Your task to perform on an android device: change your default location settings in chrome Image 0: 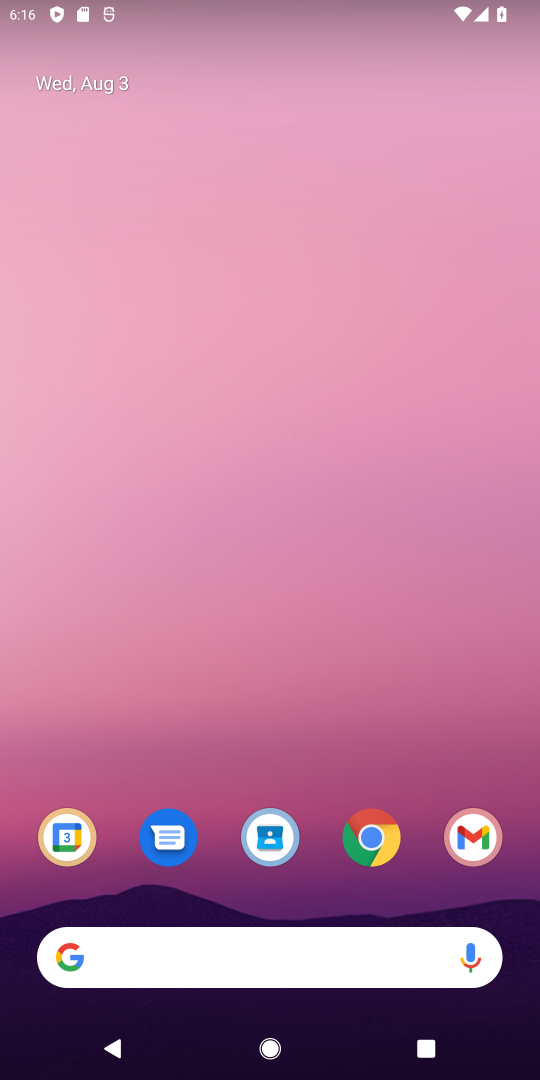
Step 0: press home button
Your task to perform on an android device: change your default location settings in chrome Image 1: 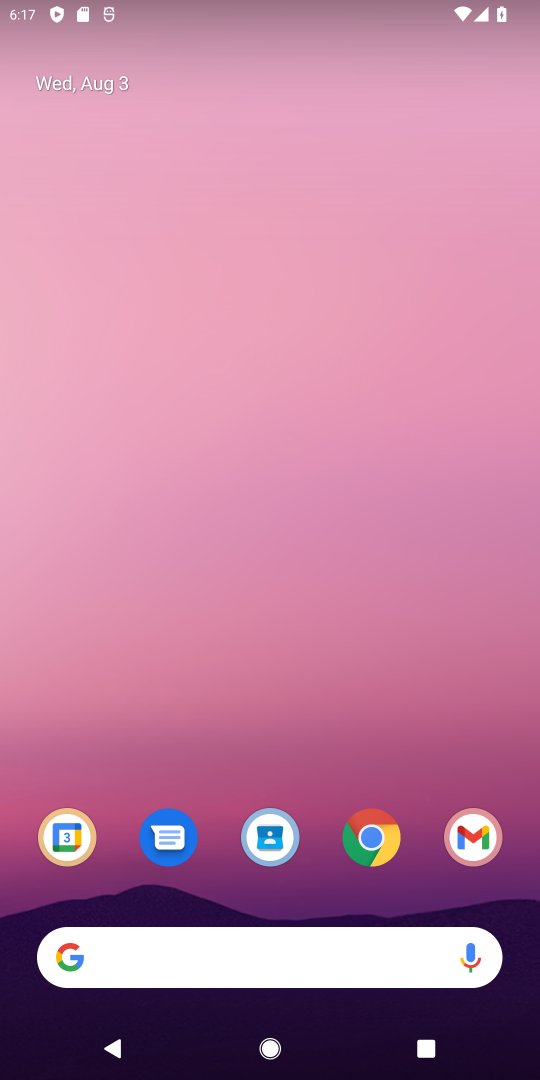
Step 1: click (384, 830)
Your task to perform on an android device: change your default location settings in chrome Image 2: 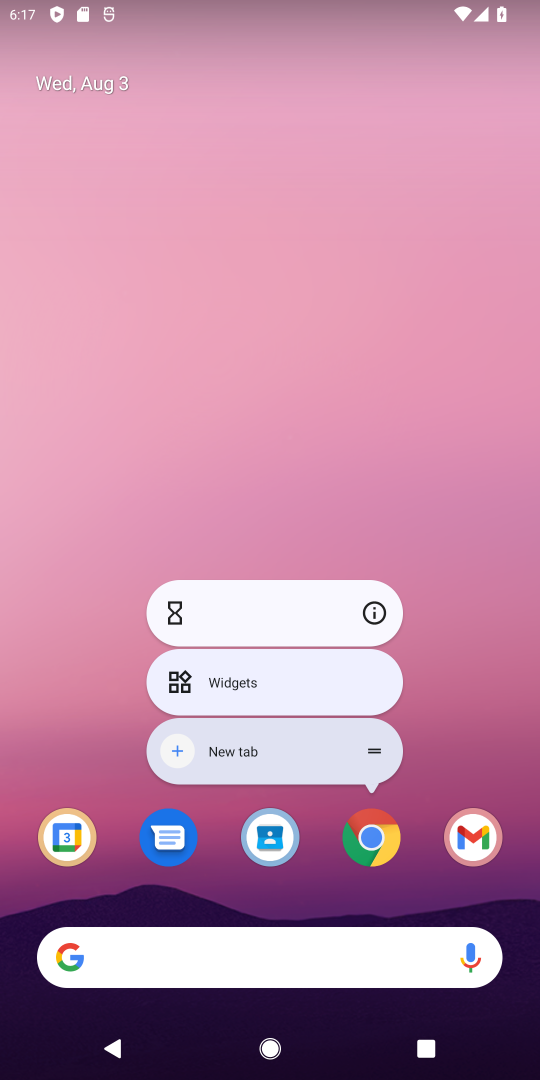
Step 2: click (384, 830)
Your task to perform on an android device: change your default location settings in chrome Image 3: 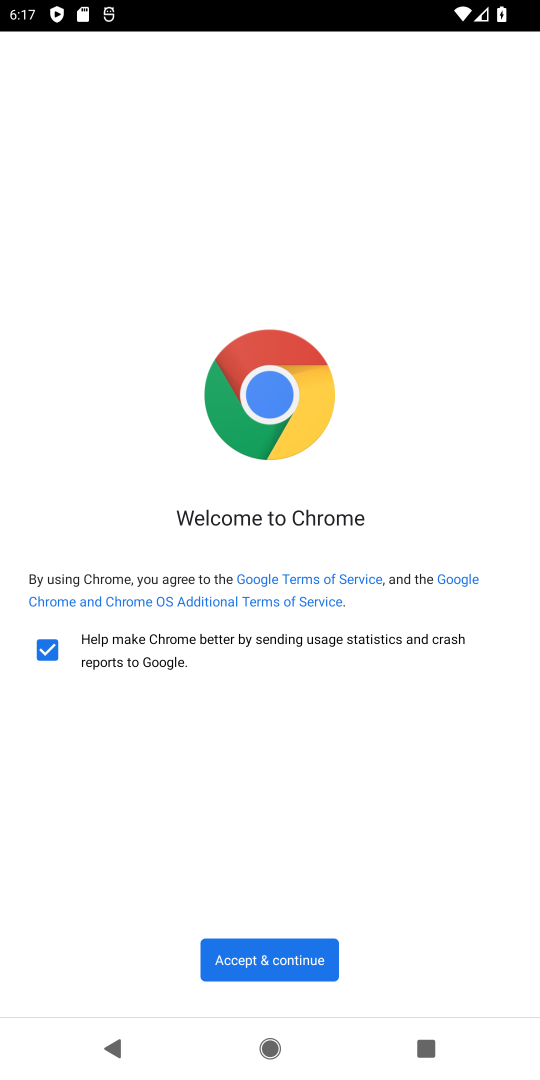
Step 3: press home button
Your task to perform on an android device: change your default location settings in chrome Image 4: 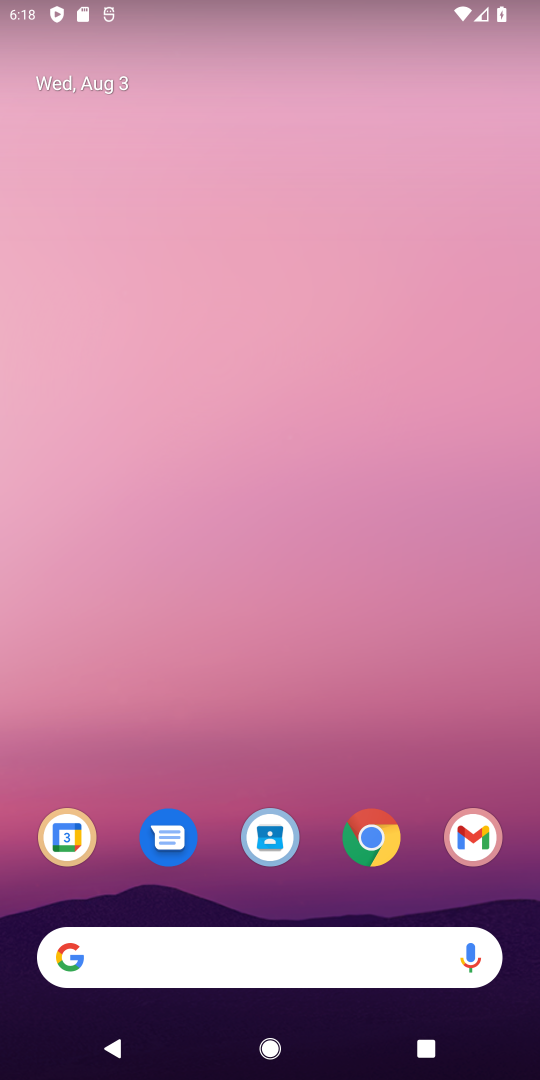
Step 4: click (382, 832)
Your task to perform on an android device: change your default location settings in chrome Image 5: 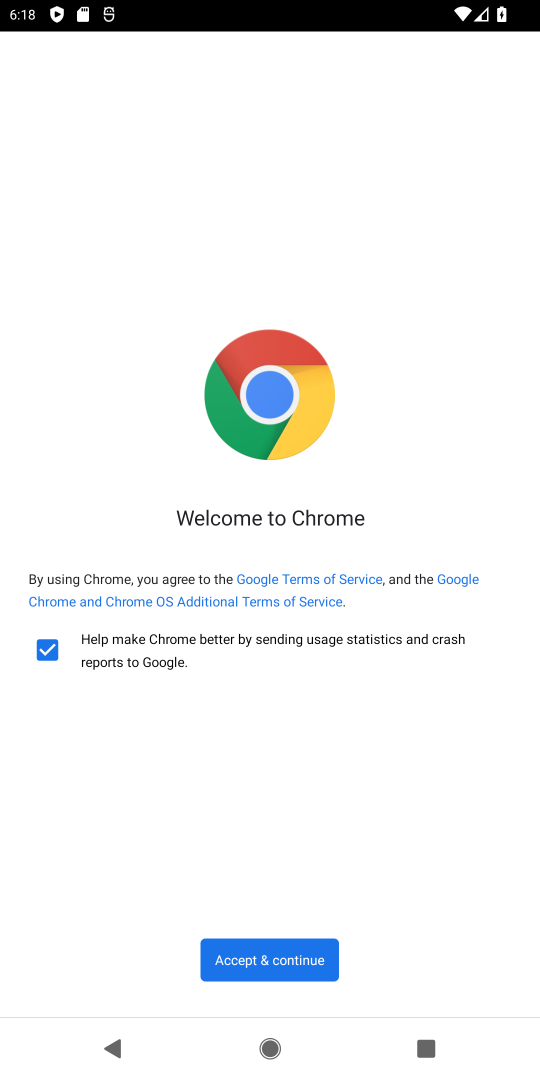
Step 5: click (285, 976)
Your task to perform on an android device: change your default location settings in chrome Image 6: 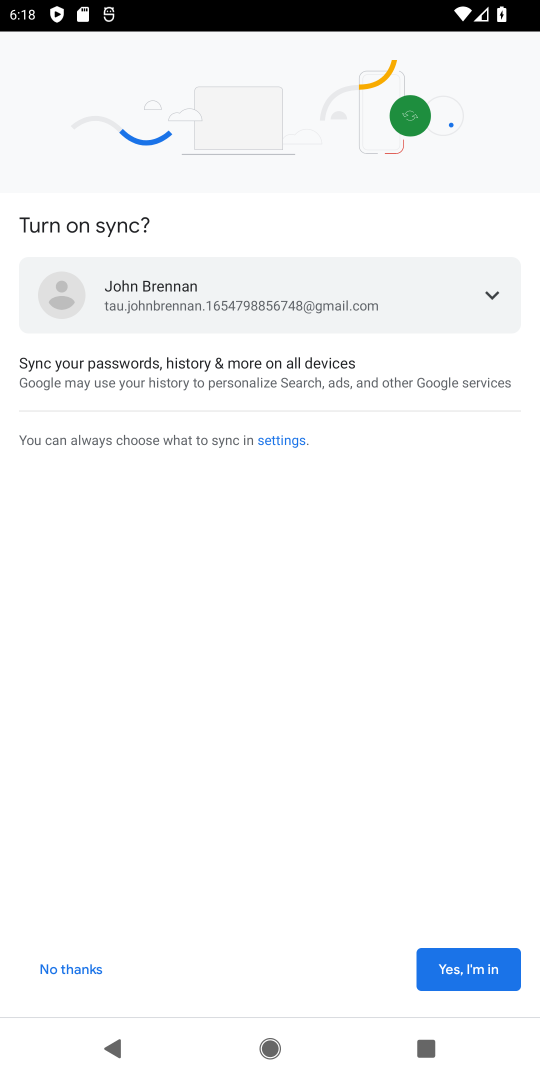
Step 6: click (285, 963)
Your task to perform on an android device: change your default location settings in chrome Image 7: 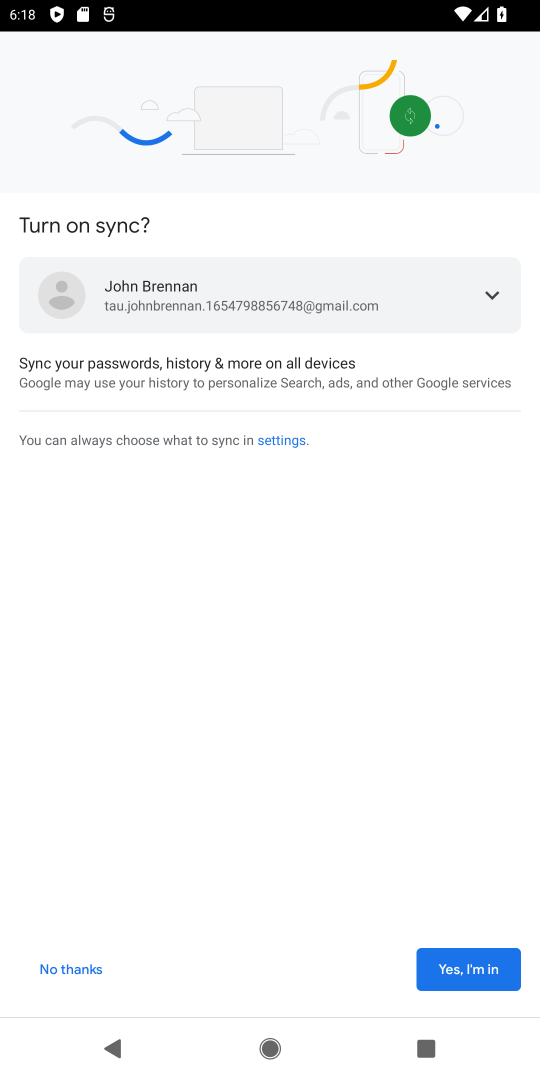
Step 7: click (469, 961)
Your task to perform on an android device: change your default location settings in chrome Image 8: 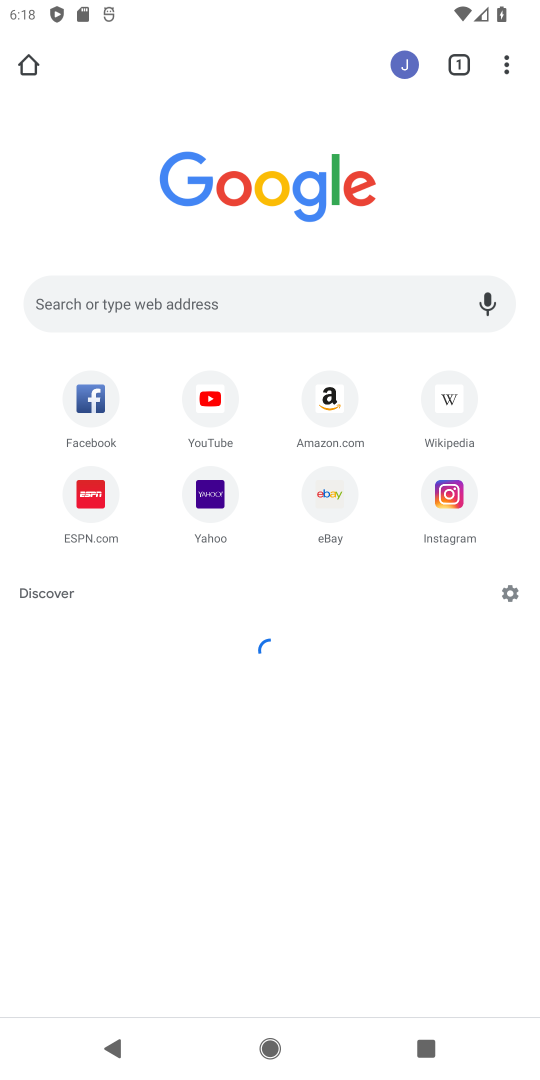
Step 8: drag from (500, 57) to (280, 556)
Your task to perform on an android device: change your default location settings in chrome Image 9: 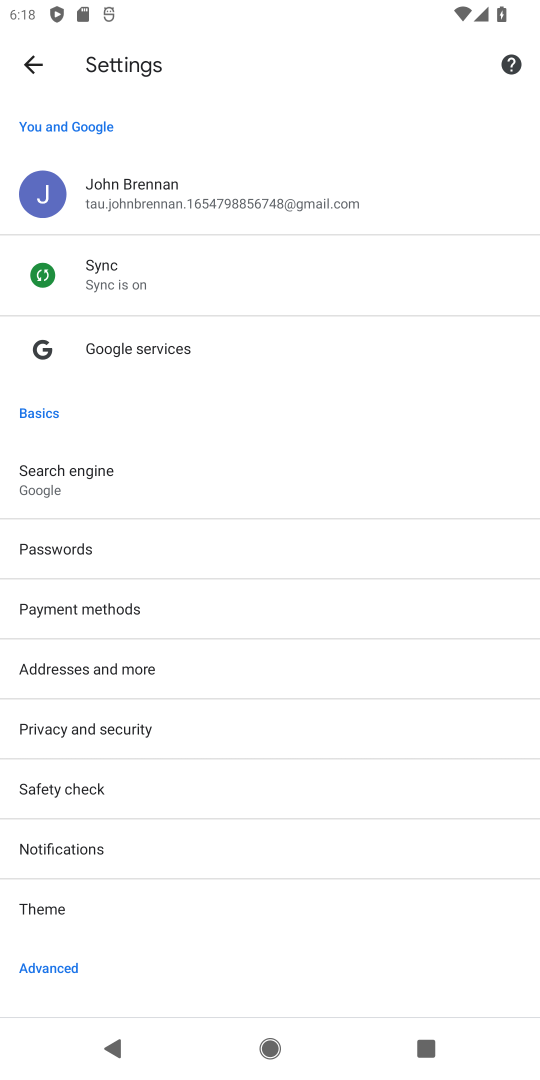
Step 9: drag from (300, 929) to (263, 449)
Your task to perform on an android device: change your default location settings in chrome Image 10: 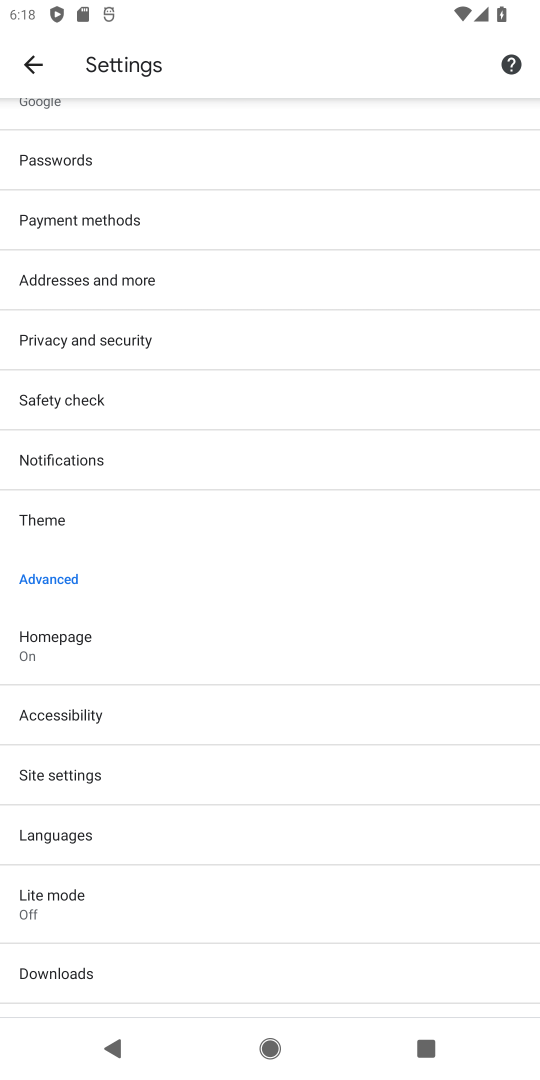
Step 10: click (96, 768)
Your task to perform on an android device: change your default location settings in chrome Image 11: 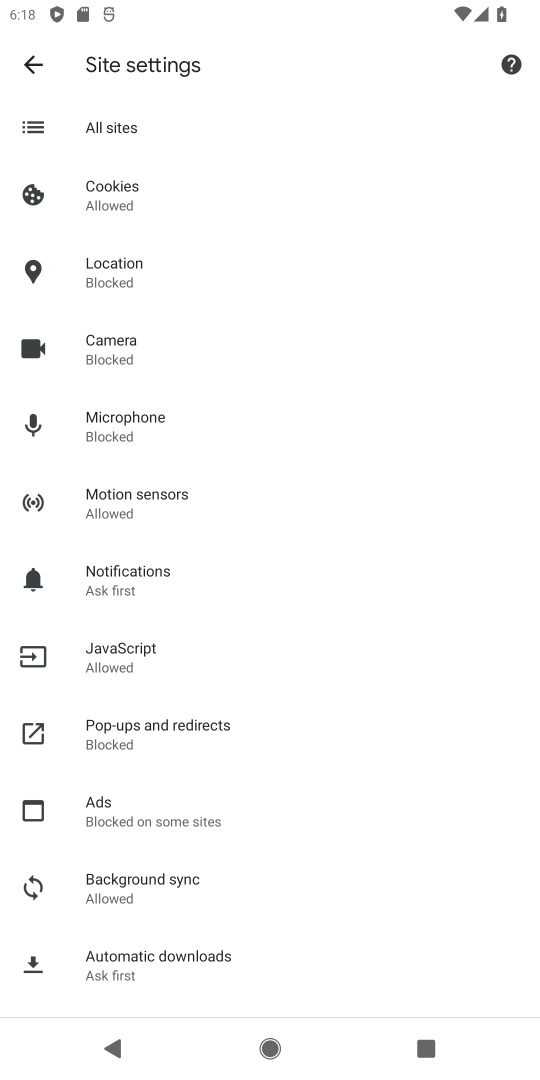
Step 11: click (115, 278)
Your task to perform on an android device: change your default location settings in chrome Image 12: 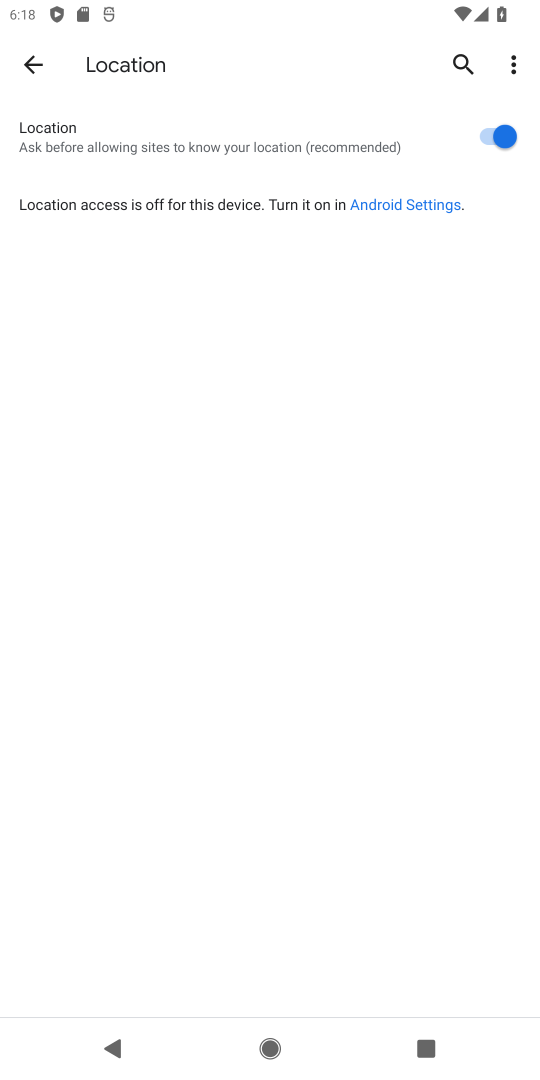
Step 12: click (496, 131)
Your task to perform on an android device: change your default location settings in chrome Image 13: 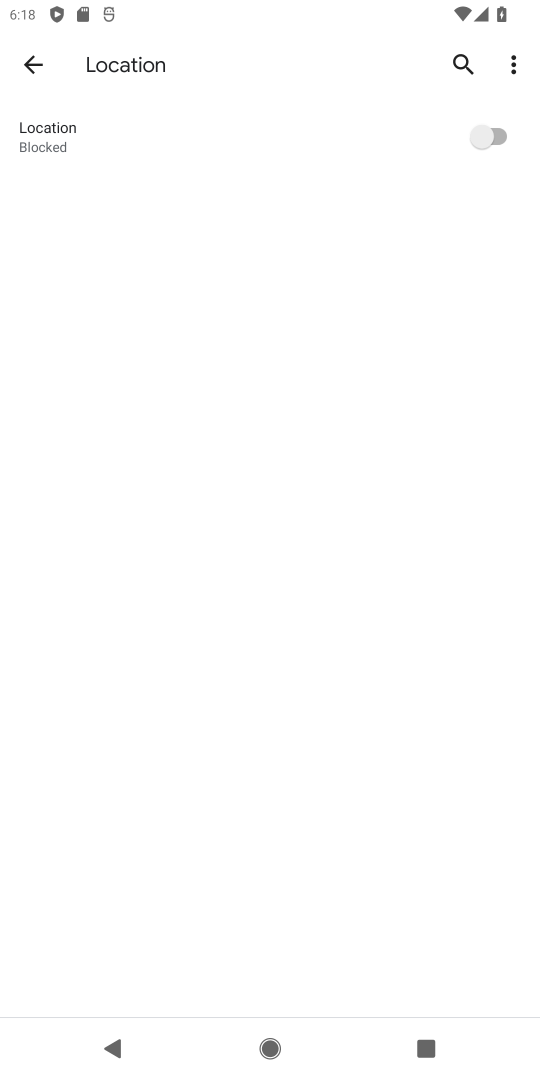
Step 13: task complete